Your task to perform on an android device: Search for 3d printed chess sets on Etsy. Image 0: 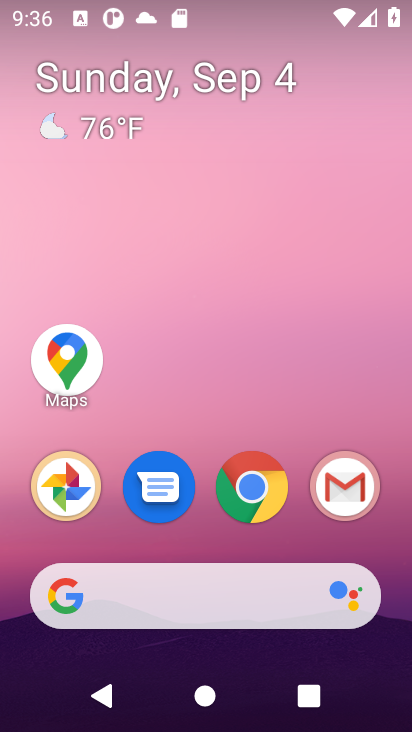
Step 0: click (177, 614)
Your task to perform on an android device: Search for 3d printed chess sets on Etsy. Image 1: 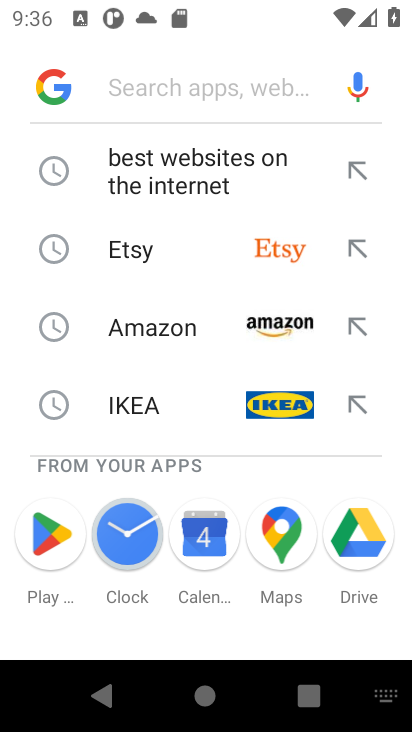
Step 1: type "etsy"
Your task to perform on an android device: Search for 3d printed chess sets on Etsy. Image 2: 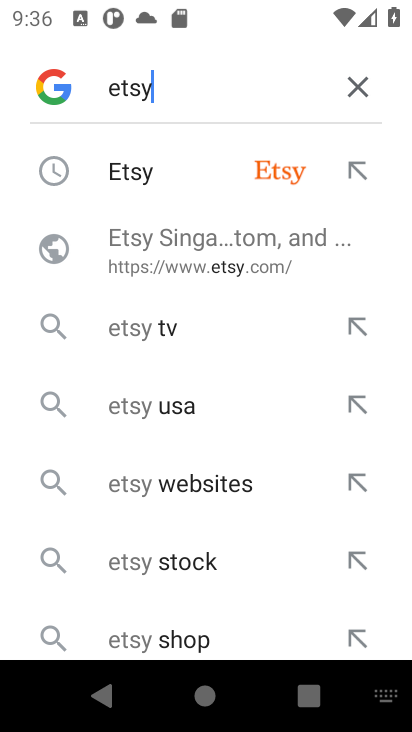
Step 2: click (288, 166)
Your task to perform on an android device: Search for 3d printed chess sets on Etsy. Image 3: 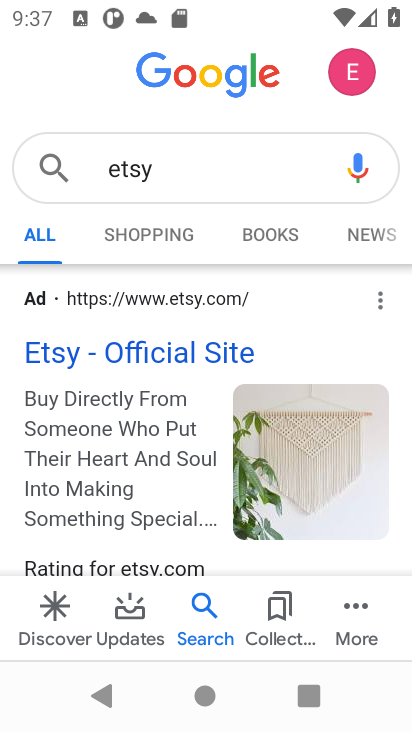
Step 3: click (171, 341)
Your task to perform on an android device: Search for 3d printed chess sets on Etsy. Image 4: 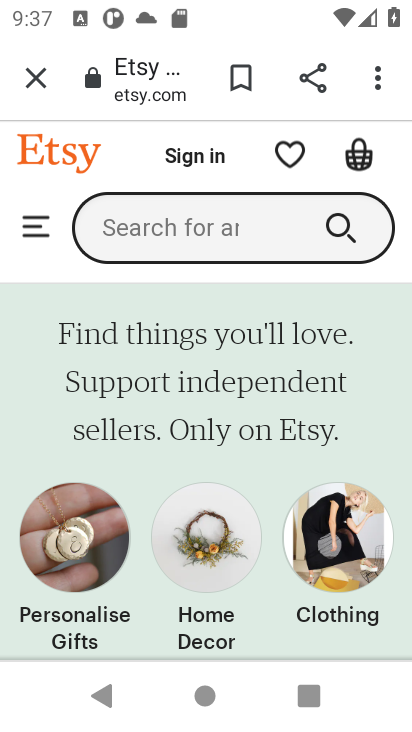
Step 4: click (262, 247)
Your task to perform on an android device: Search for 3d printed chess sets on Etsy. Image 5: 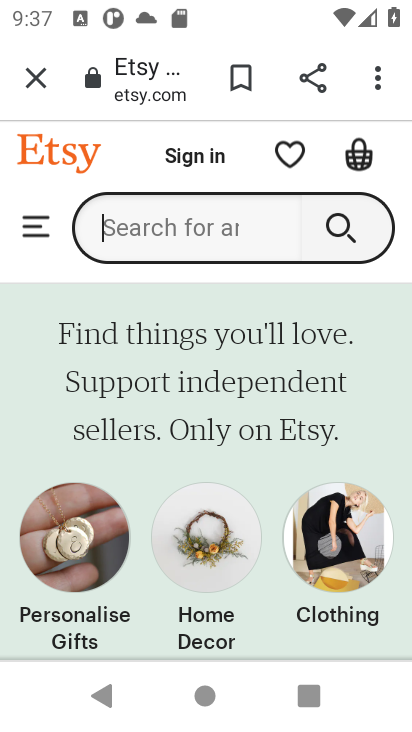
Step 5: click (262, 247)
Your task to perform on an android device: Search for 3d printed chess sets on Etsy. Image 6: 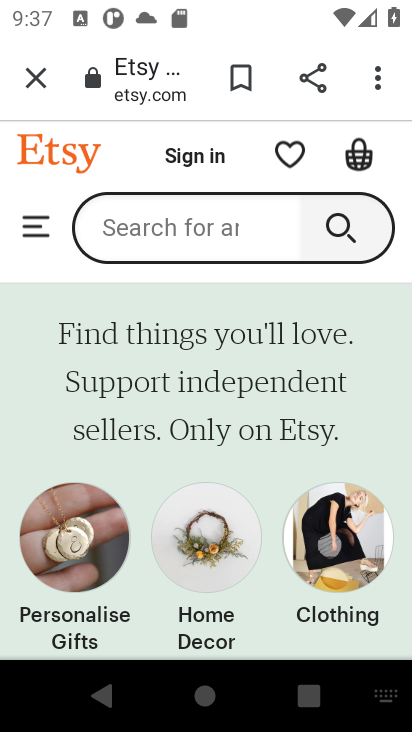
Step 6: type " 3d printed chess sets"
Your task to perform on an android device: Search for 3d printed chess sets on Etsy. Image 7: 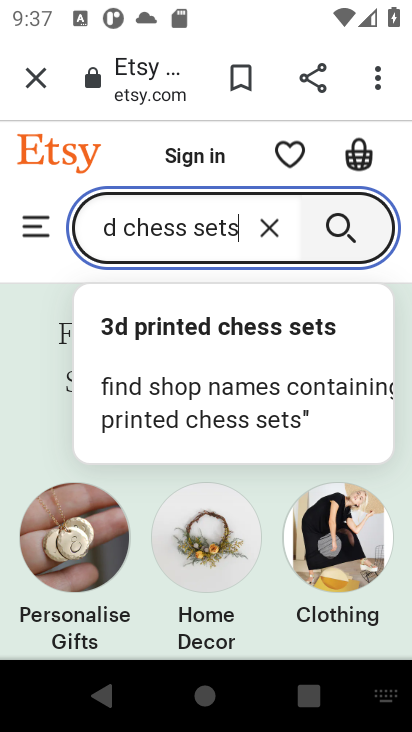
Step 7: click (242, 319)
Your task to perform on an android device: Search for 3d printed chess sets on Etsy. Image 8: 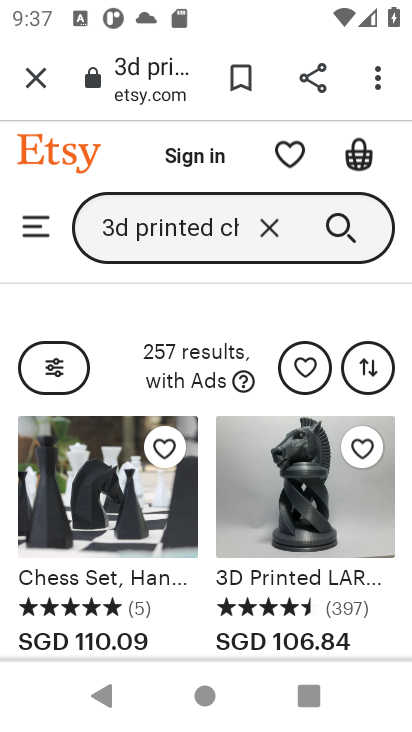
Step 8: task complete